Your task to perform on an android device: check battery use Image 0: 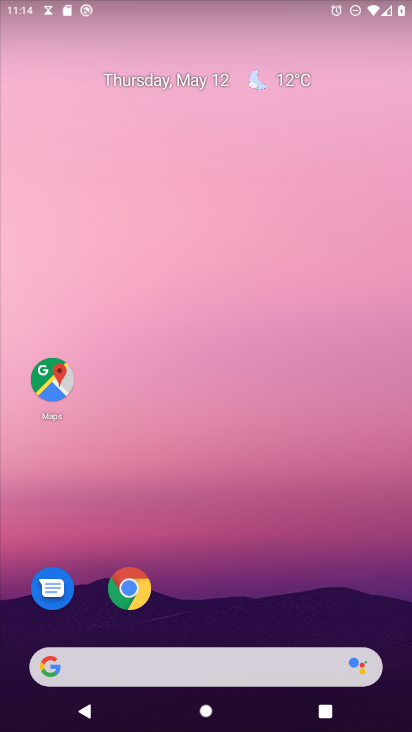
Step 0: drag from (259, 583) to (265, 89)
Your task to perform on an android device: check battery use Image 1: 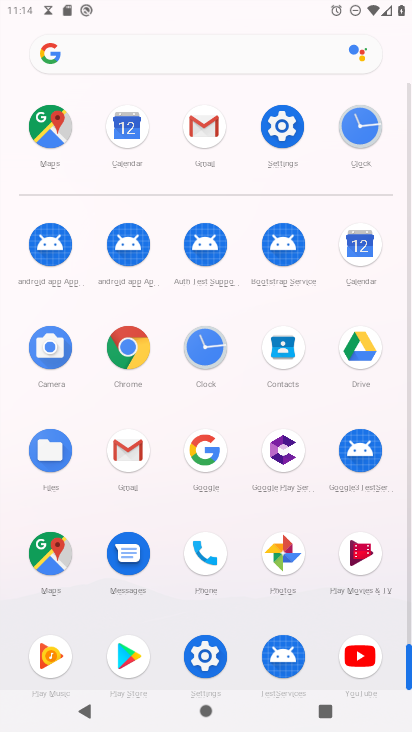
Step 1: click (279, 126)
Your task to perform on an android device: check battery use Image 2: 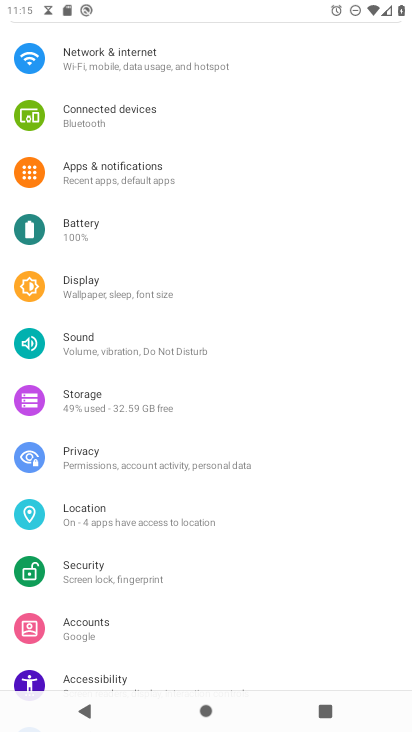
Step 2: click (87, 231)
Your task to perform on an android device: check battery use Image 3: 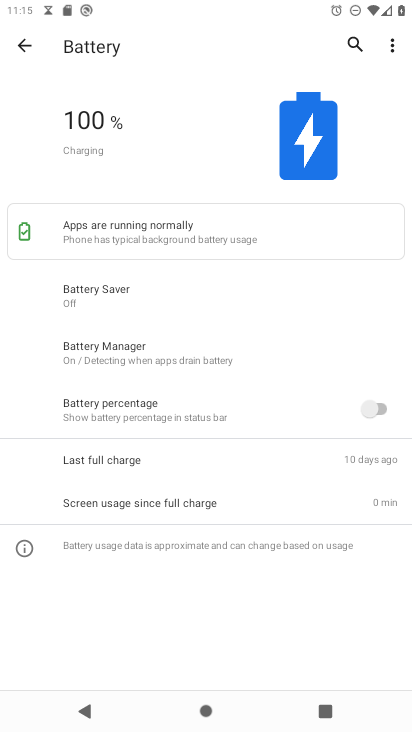
Step 3: click (392, 42)
Your task to perform on an android device: check battery use Image 4: 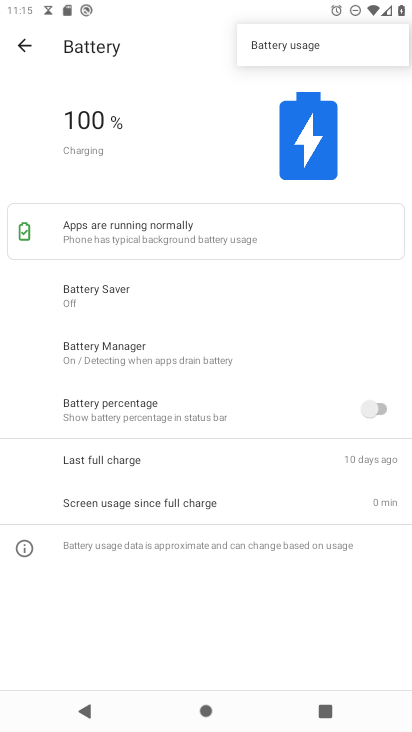
Step 4: click (290, 52)
Your task to perform on an android device: check battery use Image 5: 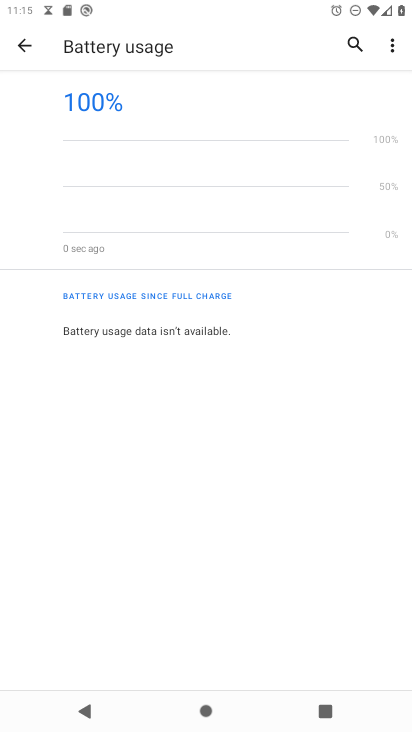
Step 5: task complete